Your task to perform on an android device: Open maps Image 0: 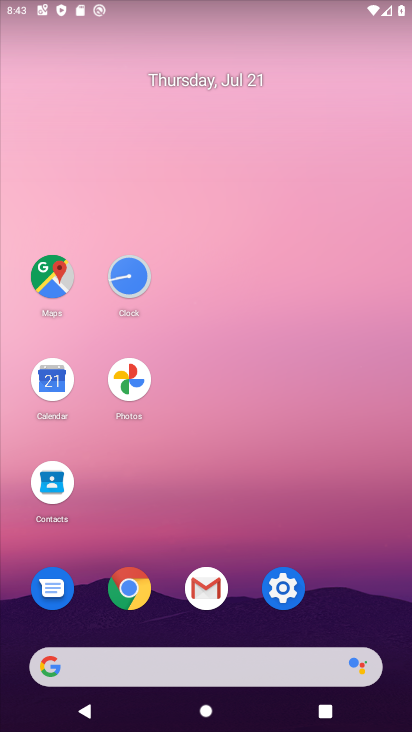
Step 0: click (48, 273)
Your task to perform on an android device: Open maps Image 1: 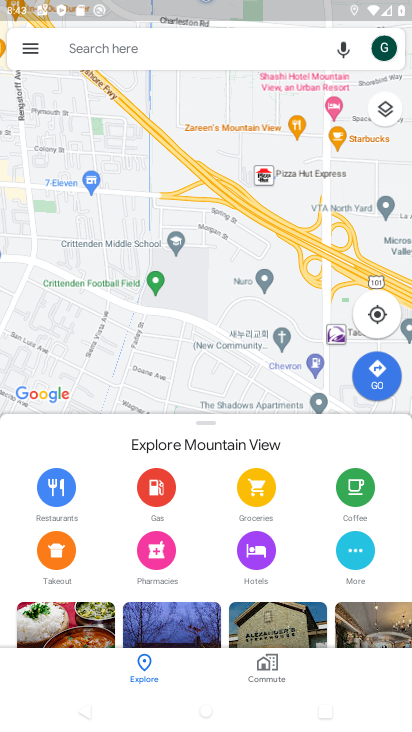
Step 1: task complete